Your task to perform on an android device: Is it going to rain this weekend? Image 0: 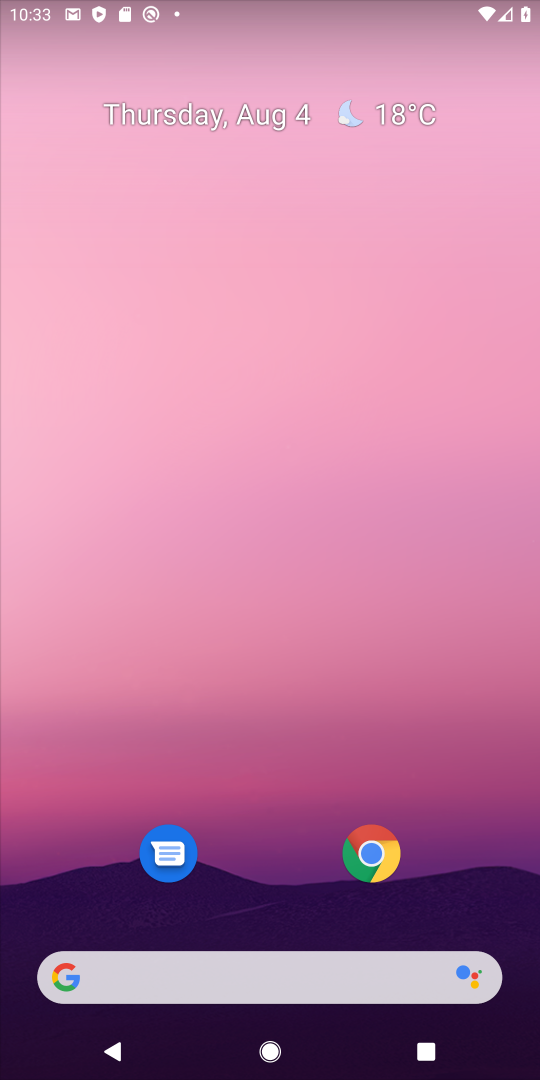
Step 0: drag from (290, 948) to (282, 38)
Your task to perform on an android device: Is it going to rain this weekend? Image 1: 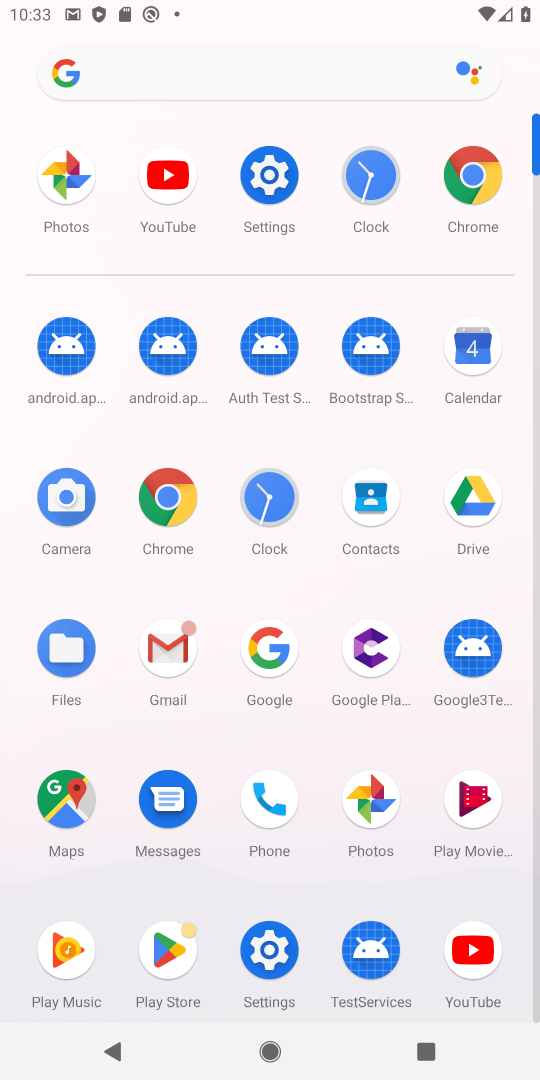
Step 1: click (259, 659)
Your task to perform on an android device: Is it going to rain this weekend? Image 2: 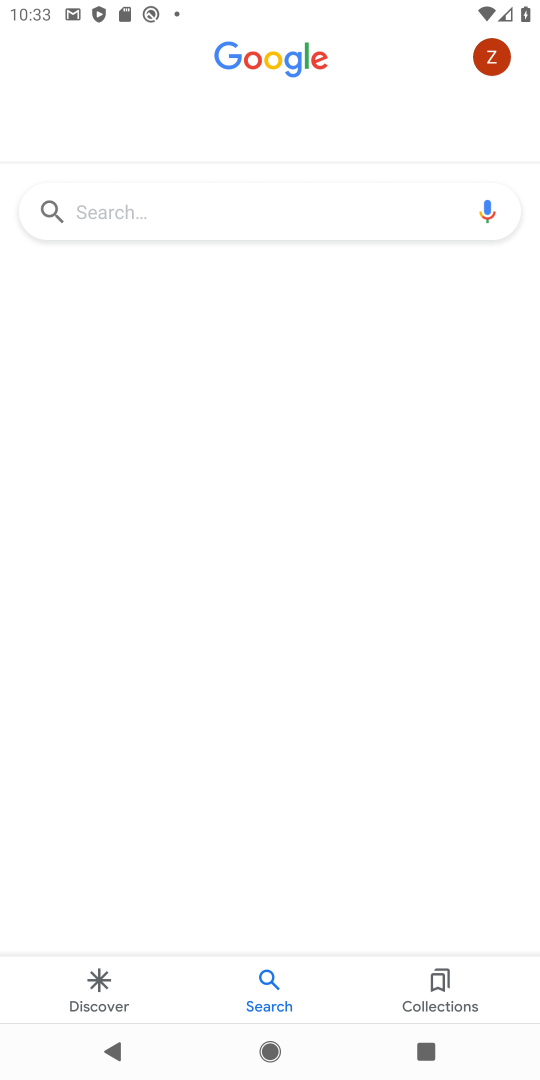
Step 2: click (226, 243)
Your task to perform on an android device: Is it going to rain this weekend? Image 3: 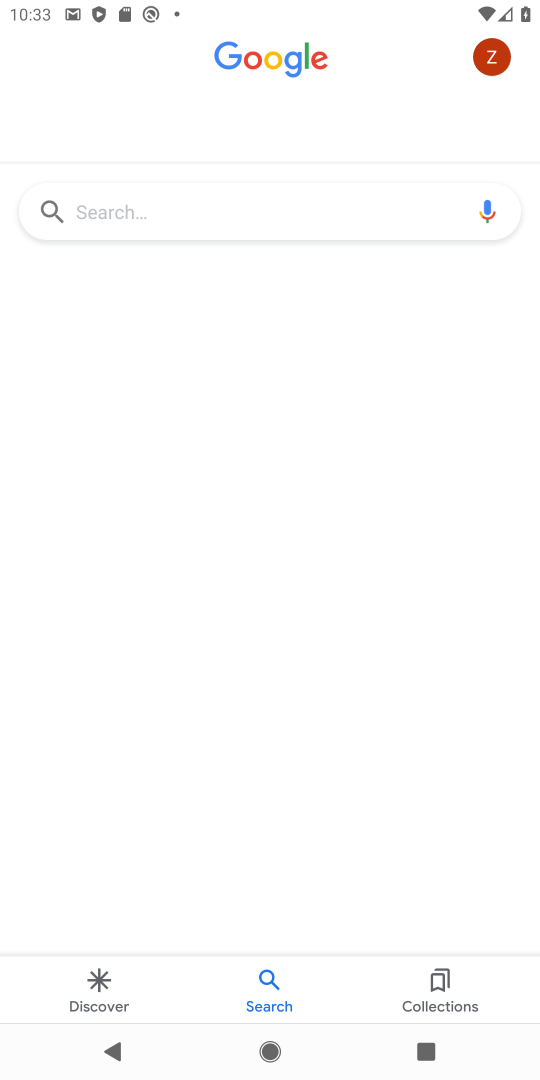
Step 3: click (226, 221)
Your task to perform on an android device: Is it going to rain this weekend? Image 4: 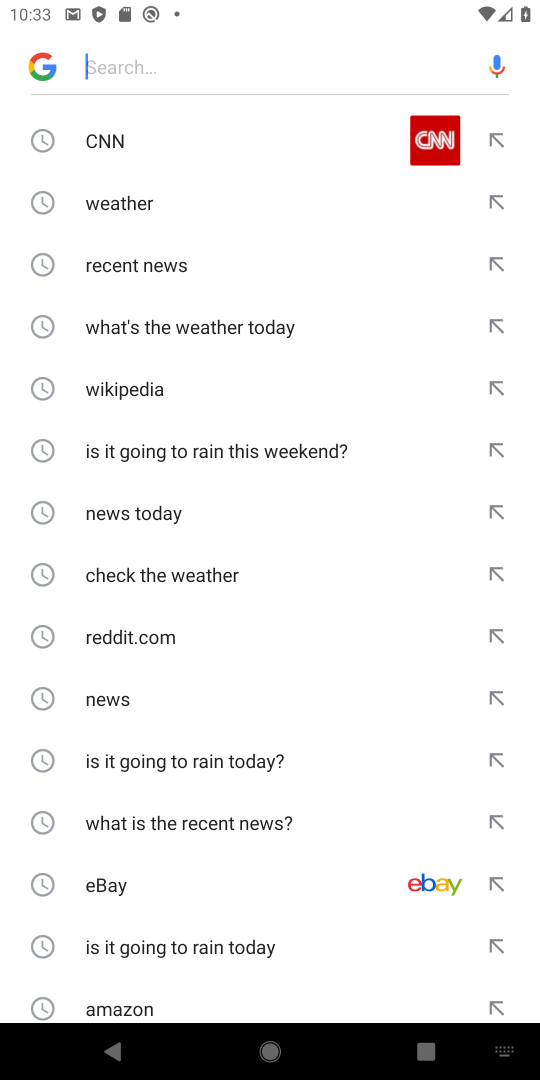
Step 4: click (126, 205)
Your task to perform on an android device: Is it going to rain this weekend? Image 5: 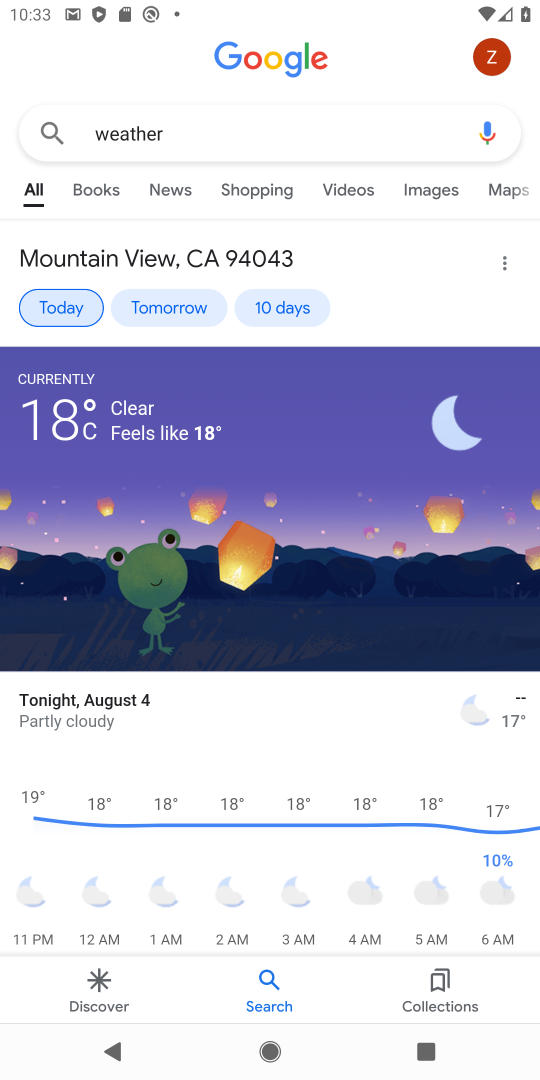
Step 5: click (258, 317)
Your task to perform on an android device: Is it going to rain this weekend? Image 6: 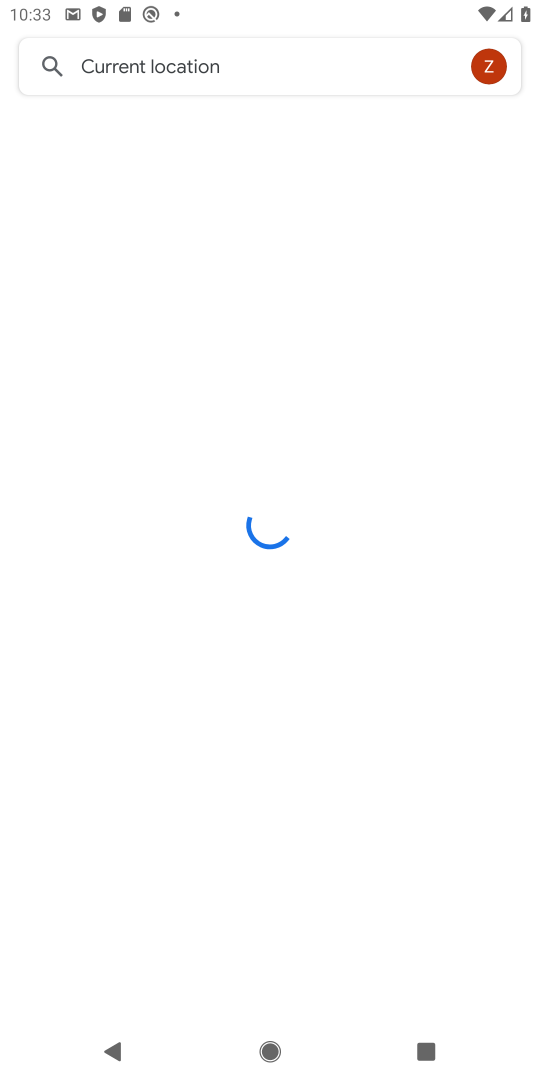
Step 6: task complete